Your task to perform on an android device: turn off airplane mode Image 0: 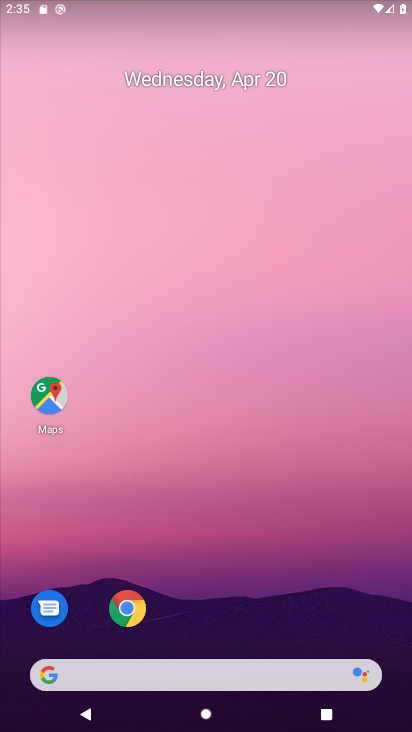
Step 0: drag from (377, 8) to (287, 514)
Your task to perform on an android device: turn off airplane mode Image 1: 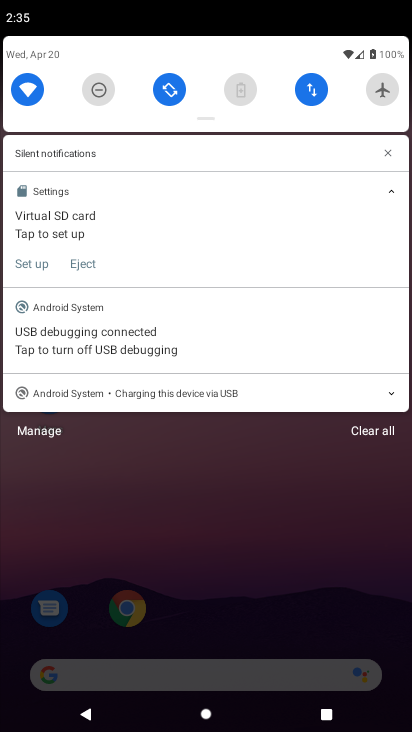
Step 1: task complete